Your task to perform on an android device: uninstall "Cash App" Image 0: 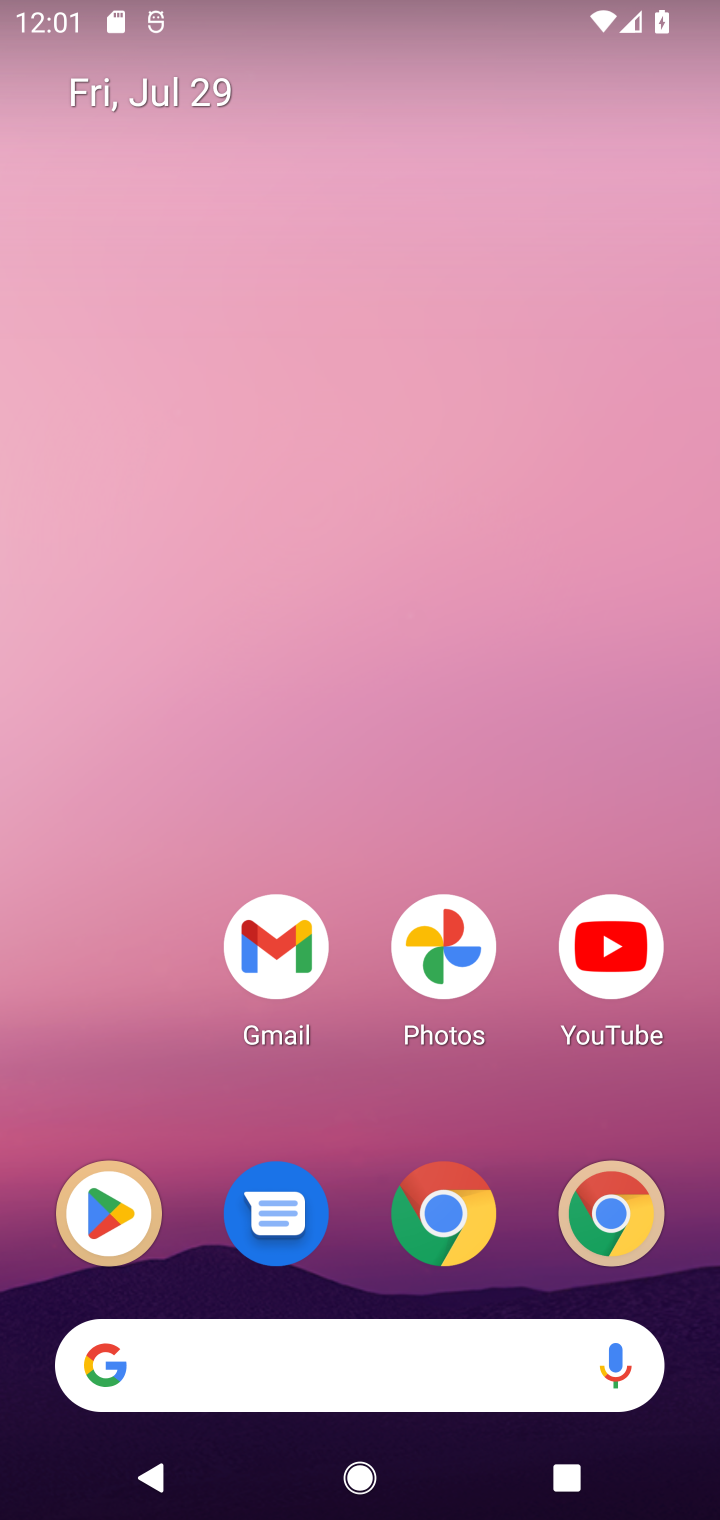
Step 0: drag from (406, 1151) to (372, 111)
Your task to perform on an android device: uninstall "Cash App" Image 1: 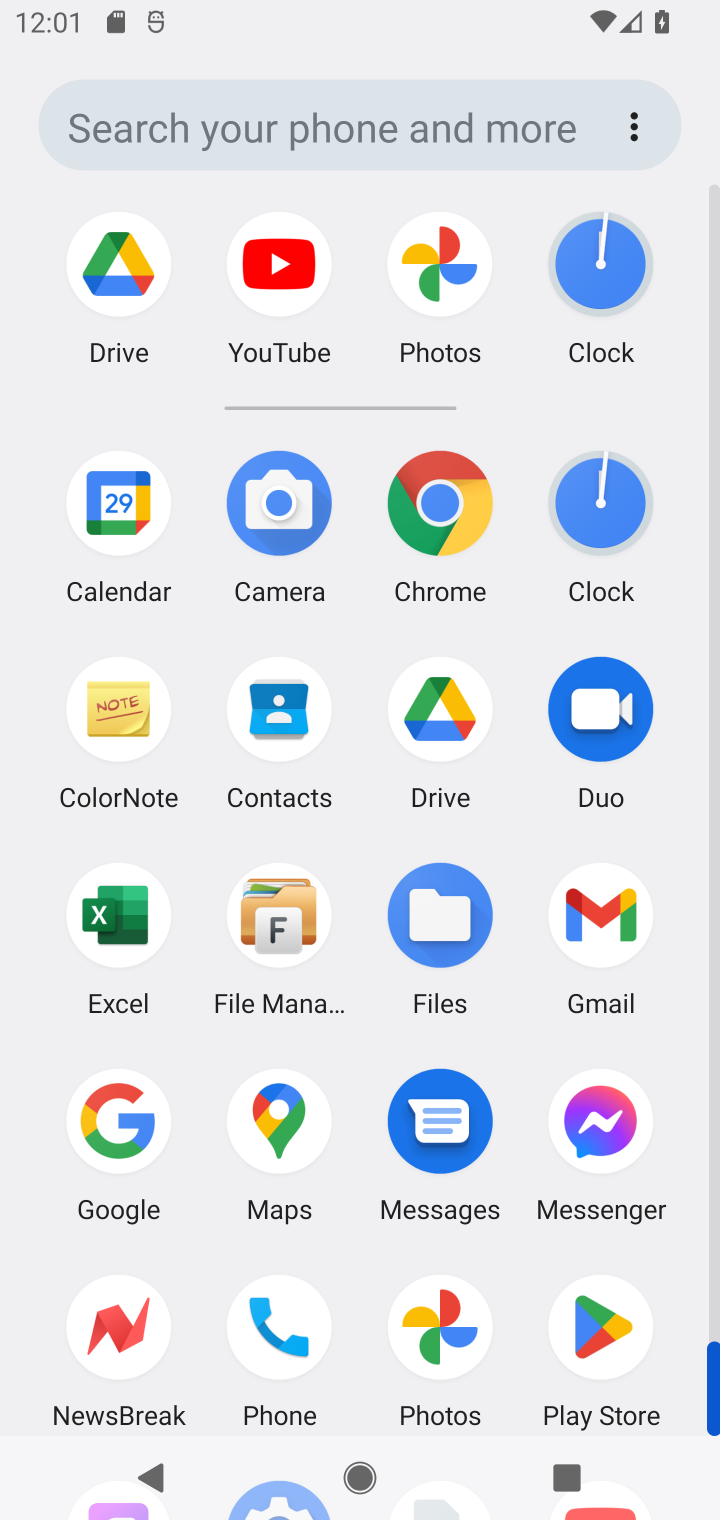
Step 1: click (590, 1339)
Your task to perform on an android device: uninstall "Cash App" Image 2: 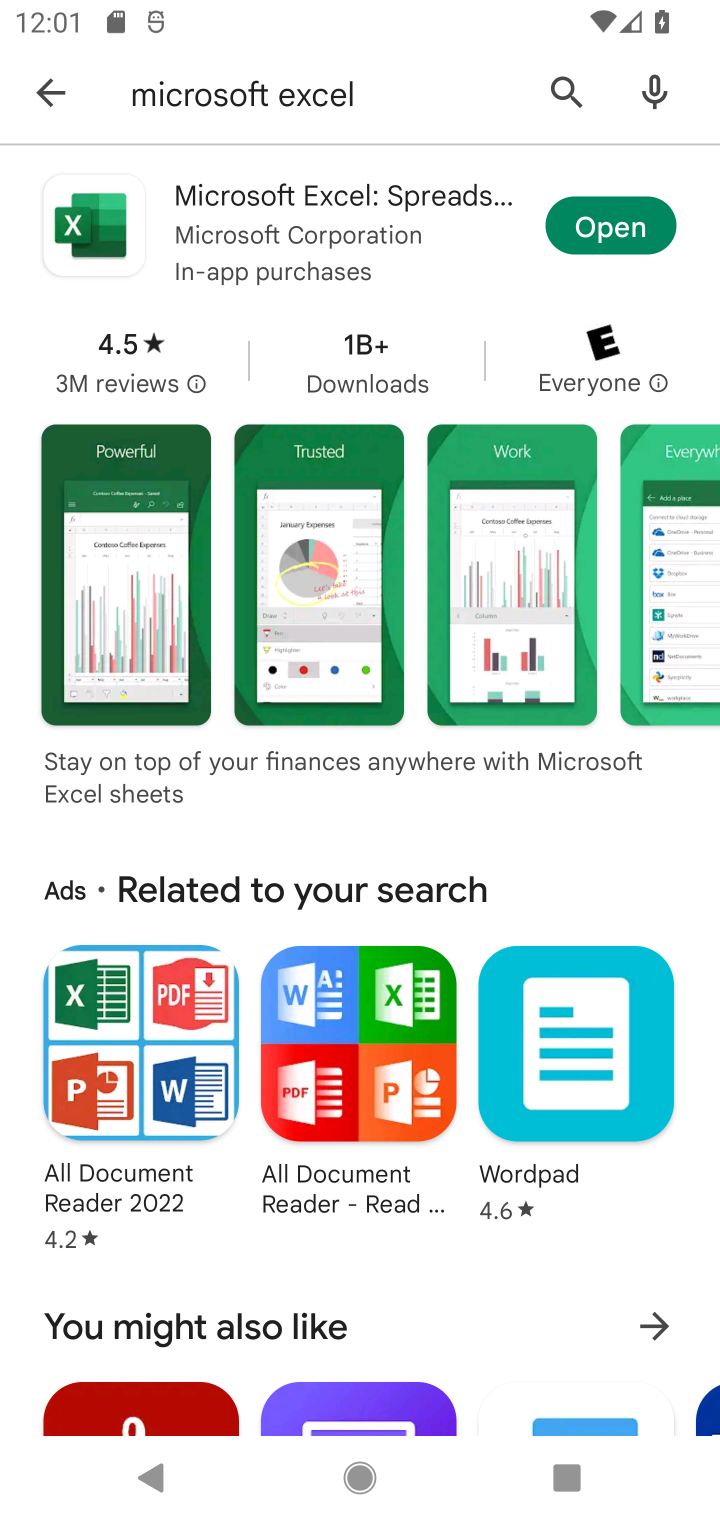
Step 2: click (560, 85)
Your task to perform on an android device: uninstall "Cash App" Image 3: 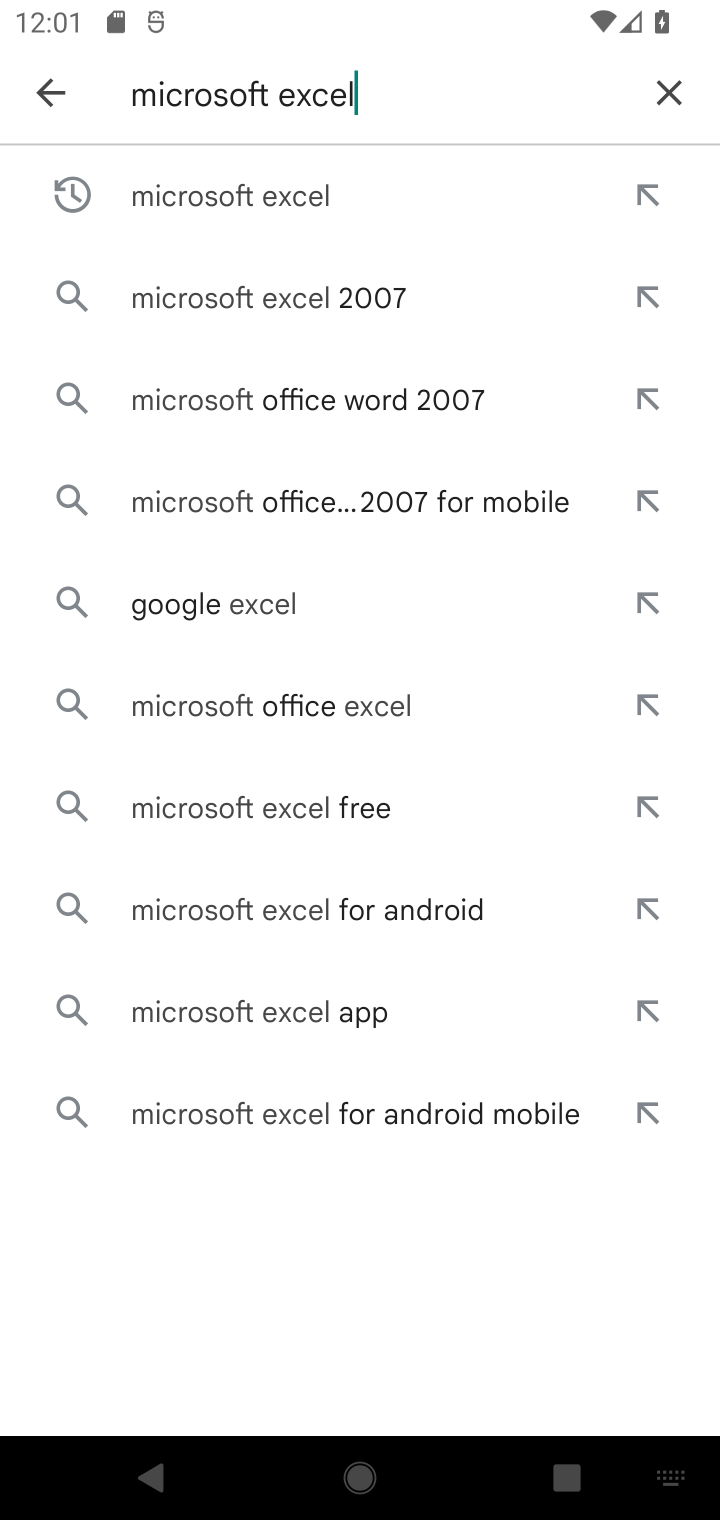
Step 3: click (670, 94)
Your task to perform on an android device: uninstall "Cash App" Image 4: 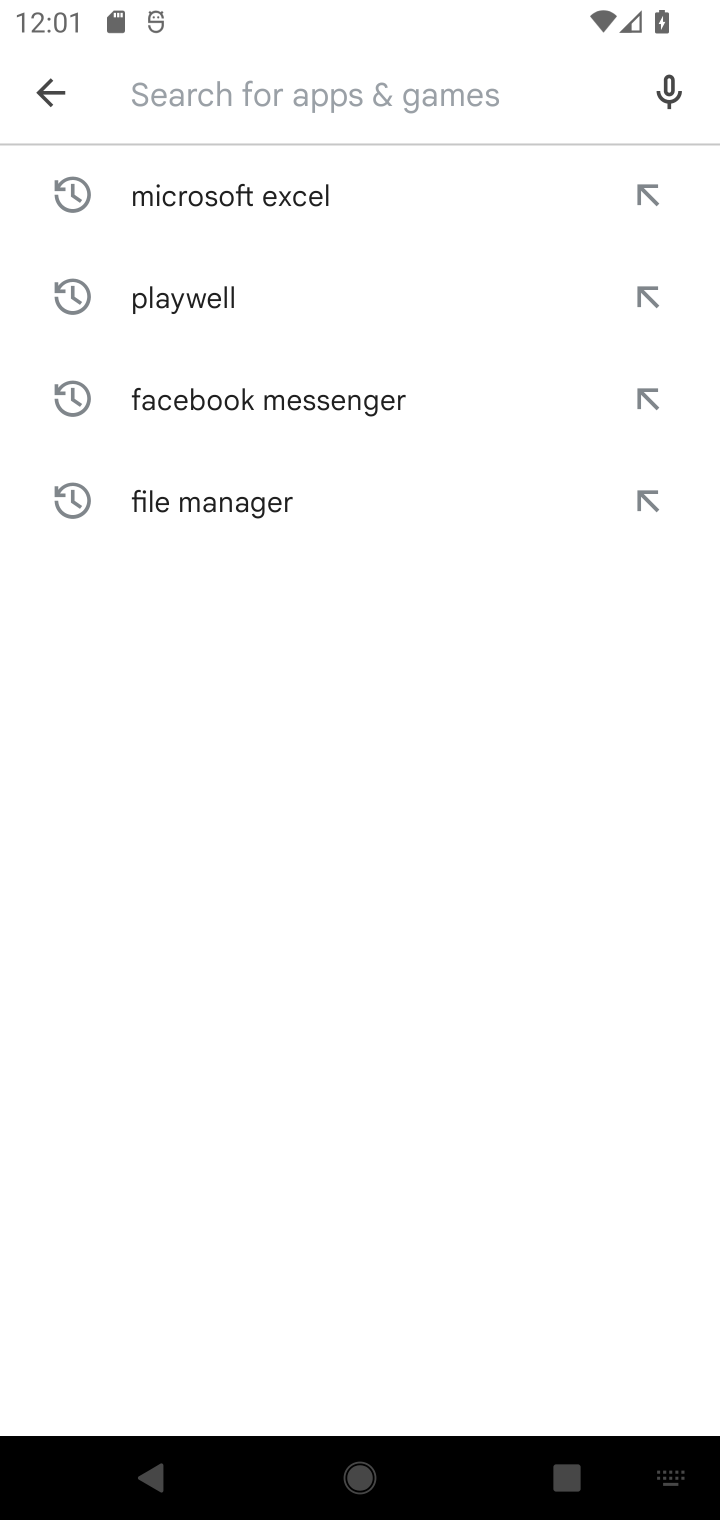
Step 4: type "Cash App"
Your task to perform on an android device: uninstall "Cash App" Image 5: 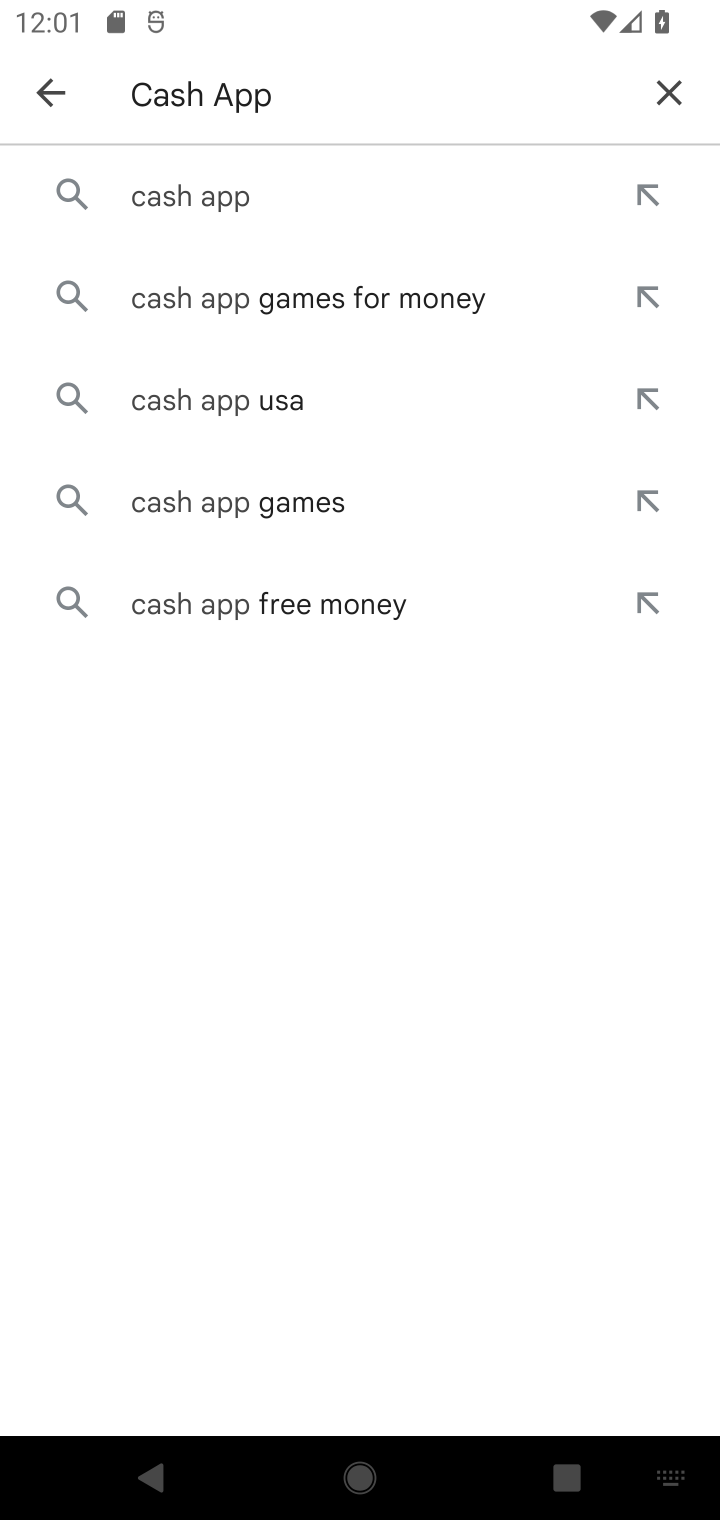
Step 5: click (178, 198)
Your task to perform on an android device: uninstall "Cash App" Image 6: 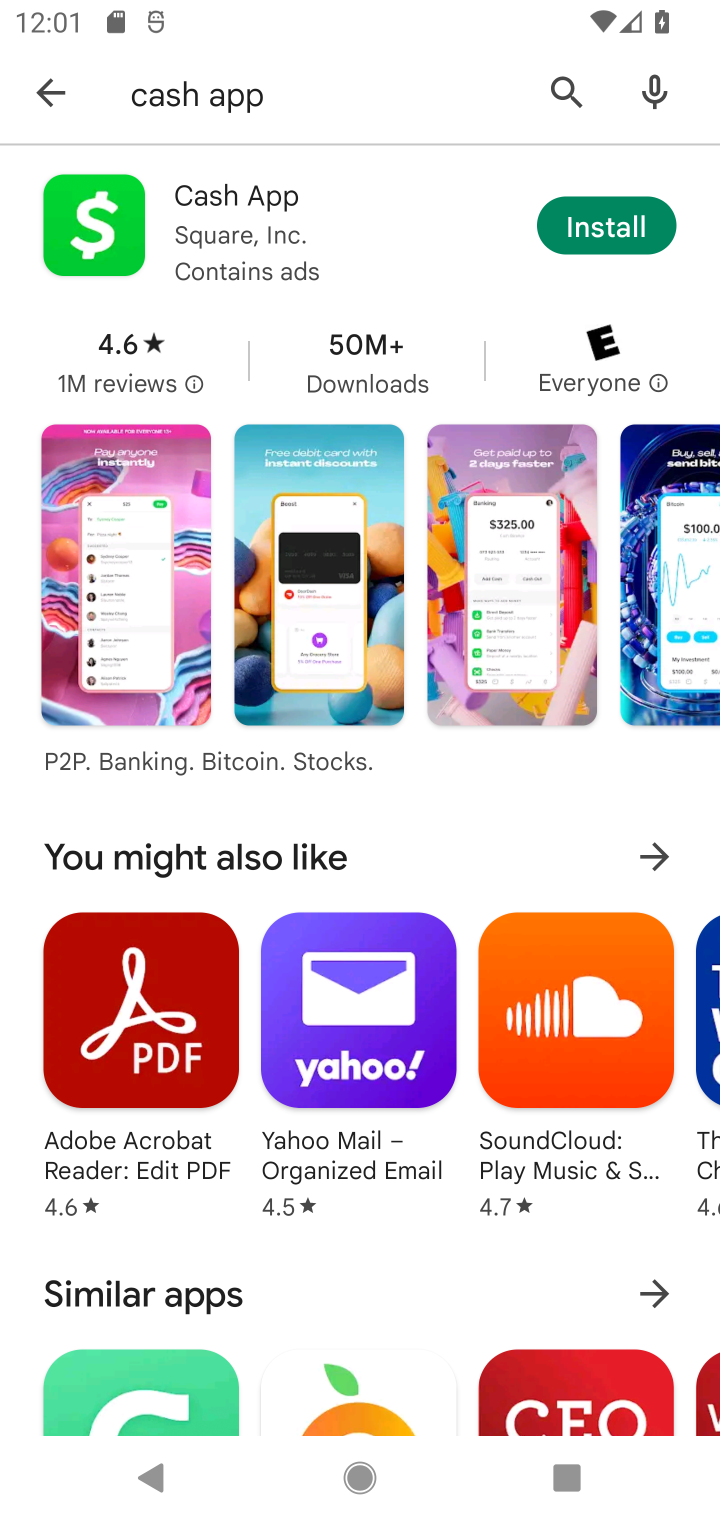
Step 6: click (192, 215)
Your task to perform on an android device: uninstall "Cash App" Image 7: 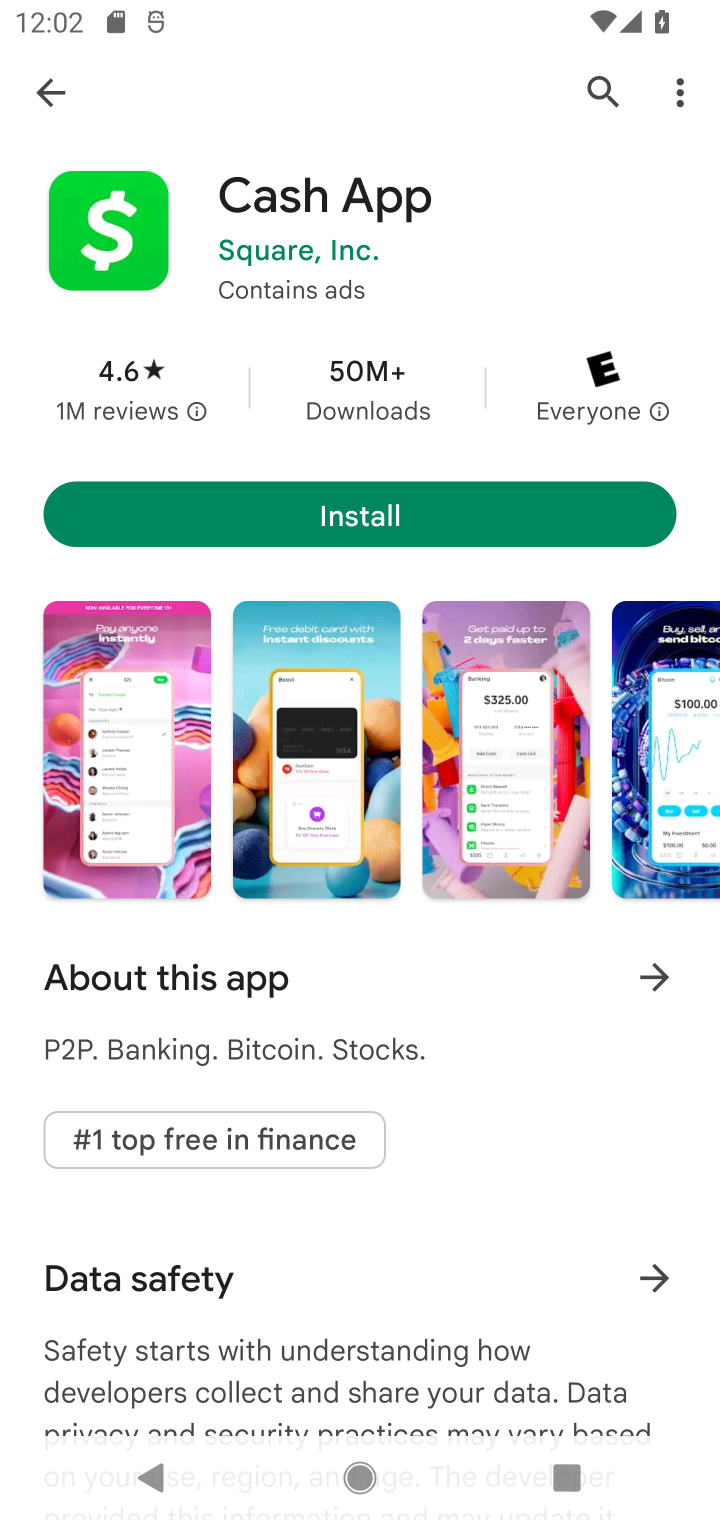
Step 7: task complete